Your task to perform on an android device: change notifications settings Image 0: 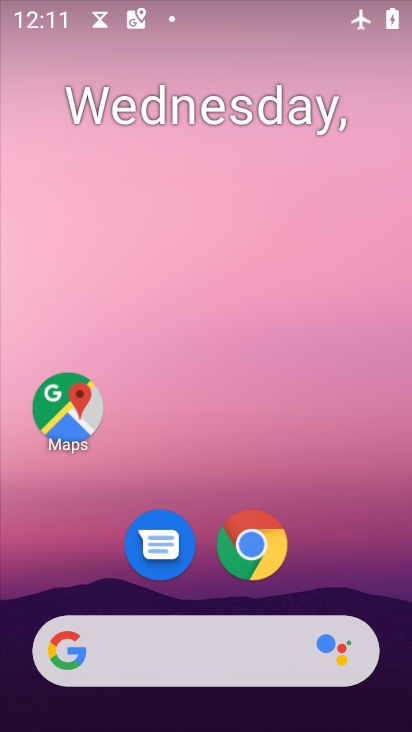
Step 0: drag from (293, 290) to (254, 3)
Your task to perform on an android device: change notifications settings Image 1: 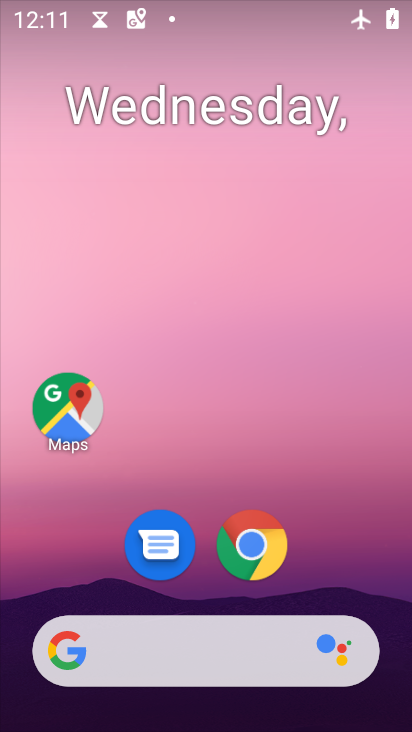
Step 1: drag from (328, 430) to (4, 498)
Your task to perform on an android device: change notifications settings Image 2: 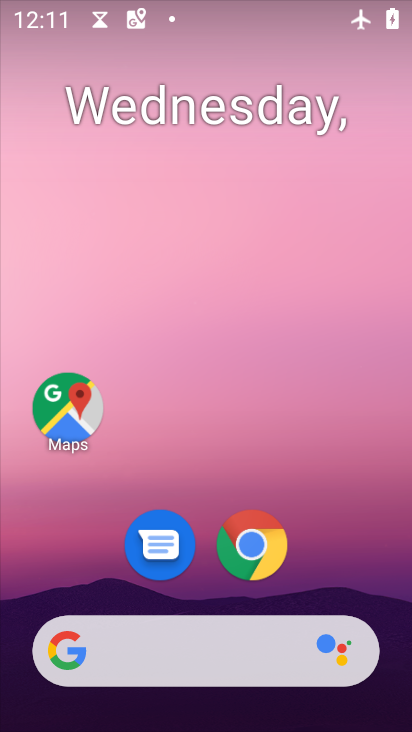
Step 2: drag from (297, 65) to (287, 0)
Your task to perform on an android device: change notifications settings Image 3: 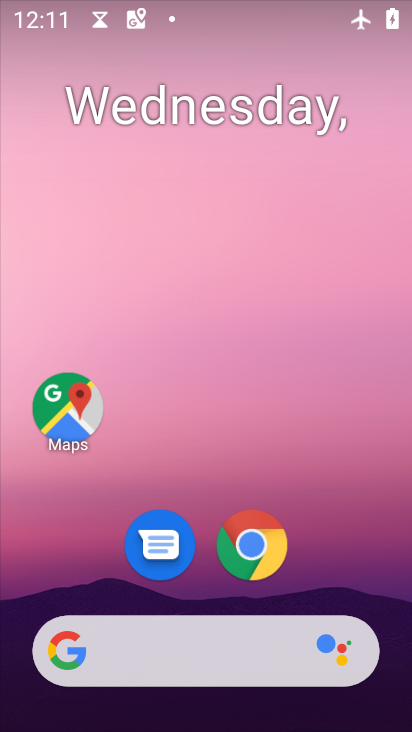
Step 3: drag from (338, 540) to (239, 10)
Your task to perform on an android device: change notifications settings Image 4: 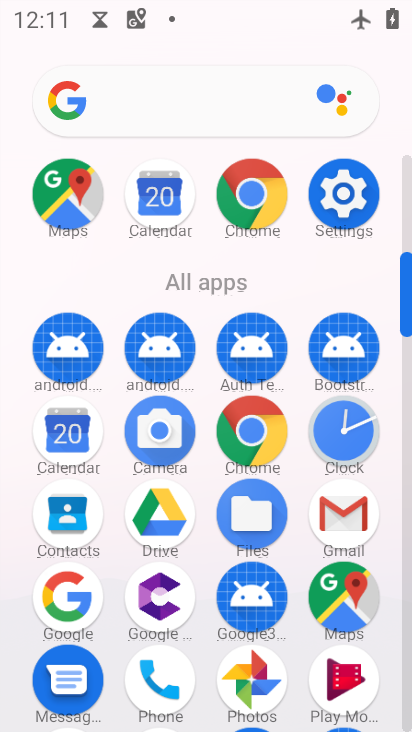
Step 4: click (348, 255)
Your task to perform on an android device: change notifications settings Image 5: 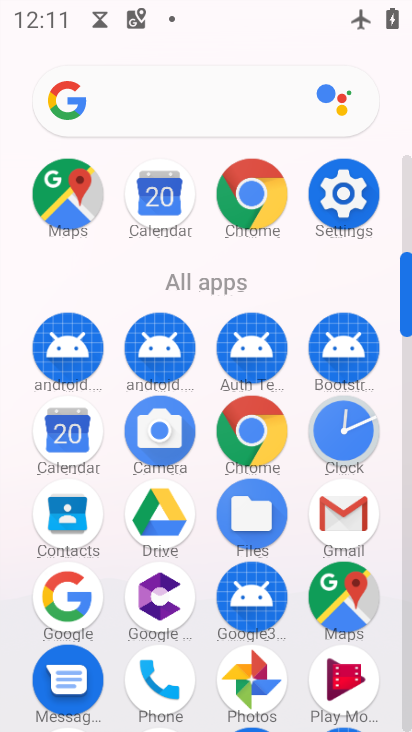
Step 5: click (341, 199)
Your task to perform on an android device: change notifications settings Image 6: 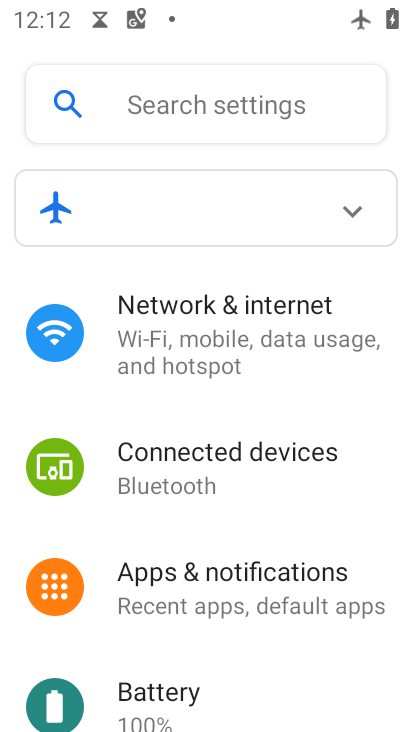
Step 6: click (266, 580)
Your task to perform on an android device: change notifications settings Image 7: 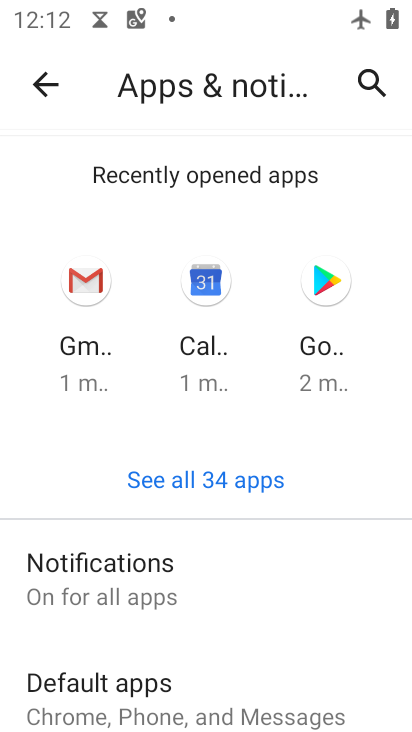
Step 7: click (96, 591)
Your task to perform on an android device: change notifications settings Image 8: 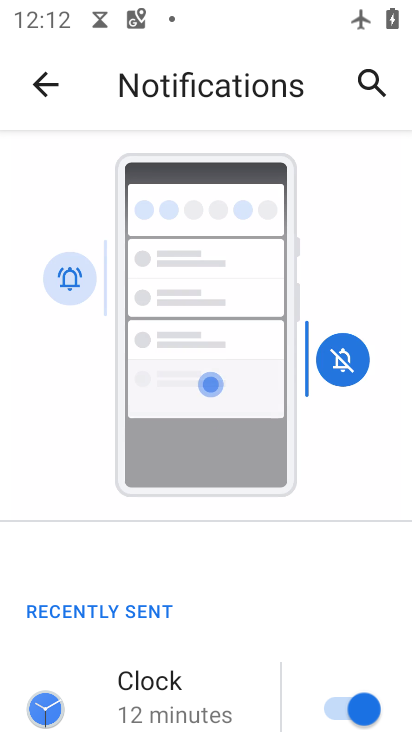
Step 8: task complete